Your task to perform on an android device: open device folders in google photos Image 0: 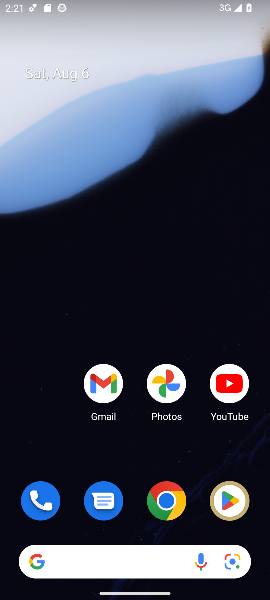
Step 0: press home button
Your task to perform on an android device: open device folders in google photos Image 1: 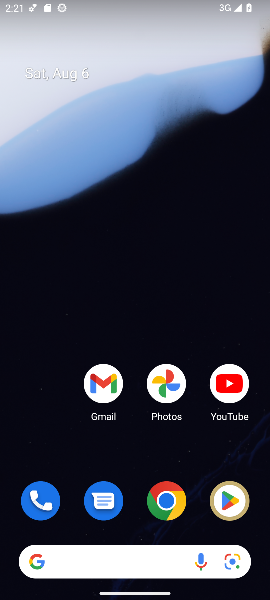
Step 1: press home button
Your task to perform on an android device: open device folders in google photos Image 2: 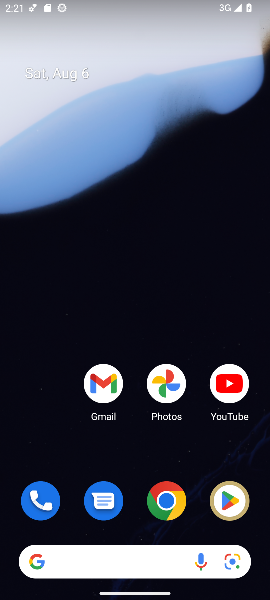
Step 2: click (165, 385)
Your task to perform on an android device: open device folders in google photos Image 3: 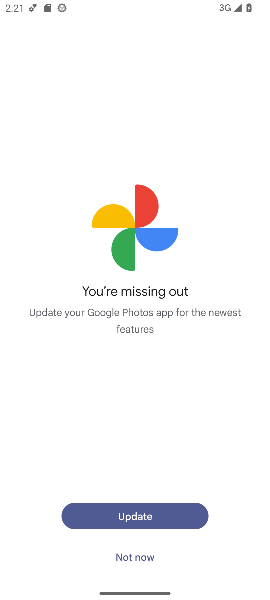
Step 3: click (162, 522)
Your task to perform on an android device: open device folders in google photos Image 4: 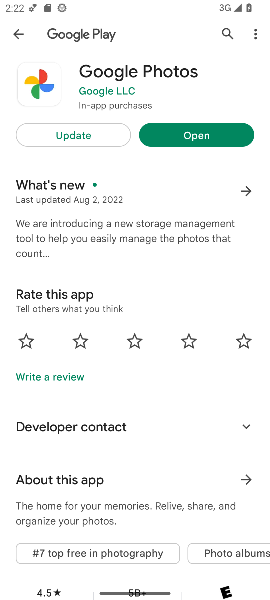
Step 4: click (62, 137)
Your task to perform on an android device: open device folders in google photos Image 5: 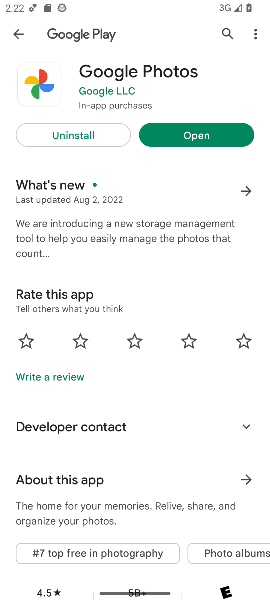
Step 5: click (177, 133)
Your task to perform on an android device: open device folders in google photos Image 6: 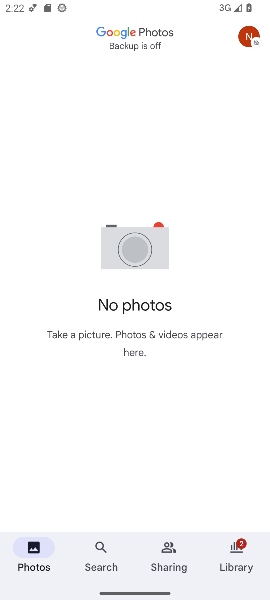
Step 6: click (250, 39)
Your task to perform on an android device: open device folders in google photos Image 7: 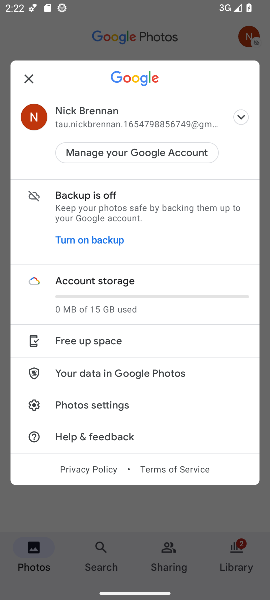
Step 7: task complete